Your task to perform on an android device: Open Google Chrome Image 0: 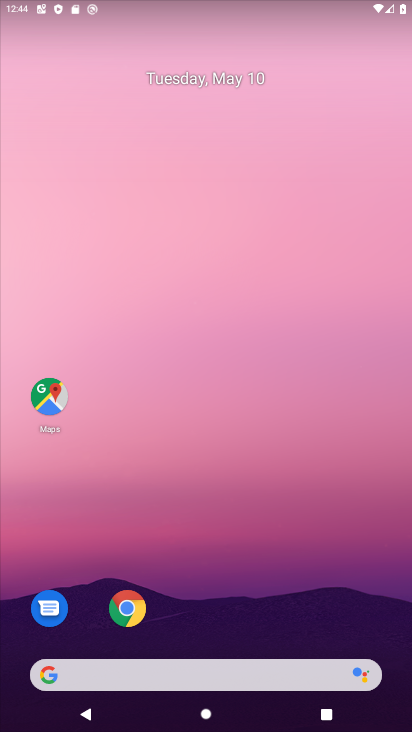
Step 0: drag from (342, 616) to (350, 146)
Your task to perform on an android device: Open Google Chrome Image 1: 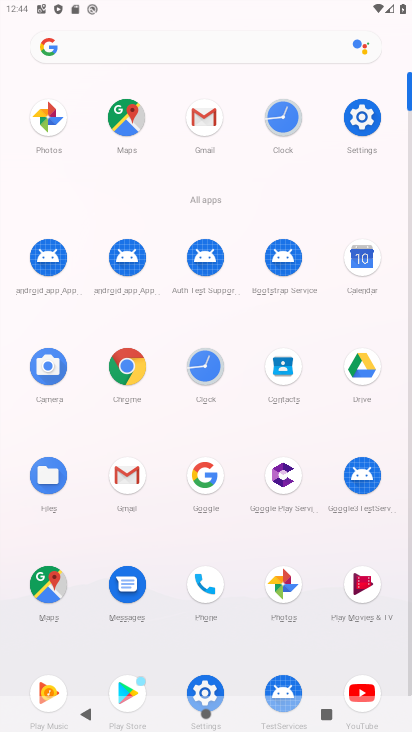
Step 1: click (130, 376)
Your task to perform on an android device: Open Google Chrome Image 2: 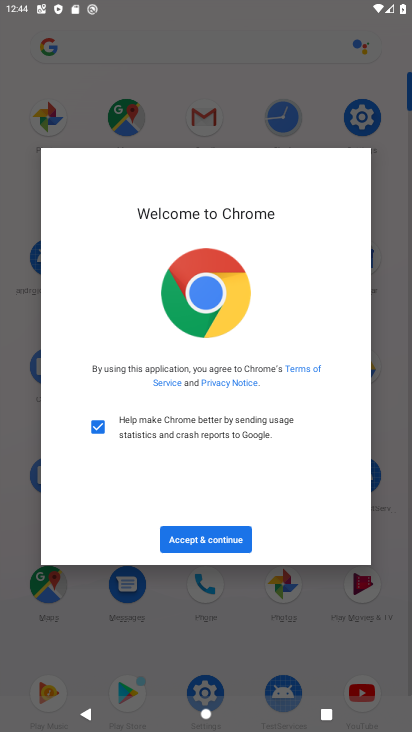
Step 2: click (226, 545)
Your task to perform on an android device: Open Google Chrome Image 3: 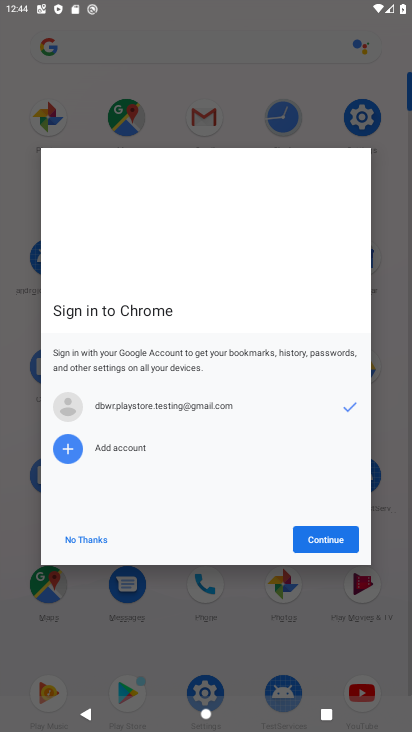
Step 3: click (340, 529)
Your task to perform on an android device: Open Google Chrome Image 4: 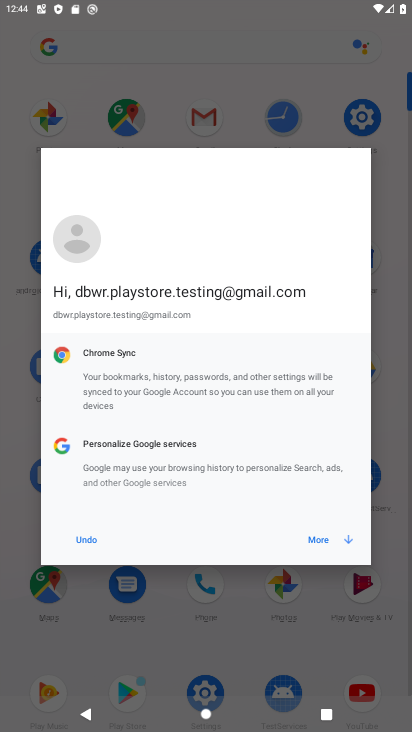
Step 4: click (329, 541)
Your task to perform on an android device: Open Google Chrome Image 5: 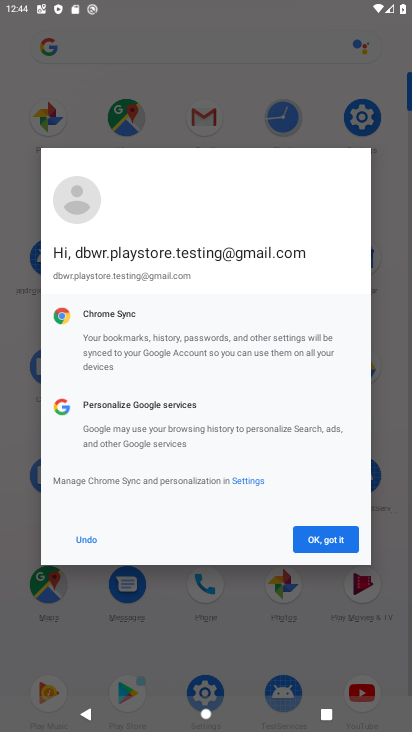
Step 5: click (329, 541)
Your task to perform on an android device: Open Google Chrome Image 6: 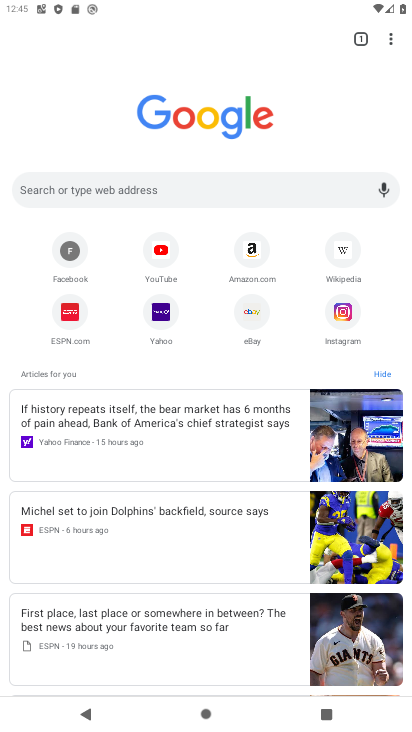
Step 6: task complete